Your task to perform on an android device: visit the assistant section in the google photos Image 0: 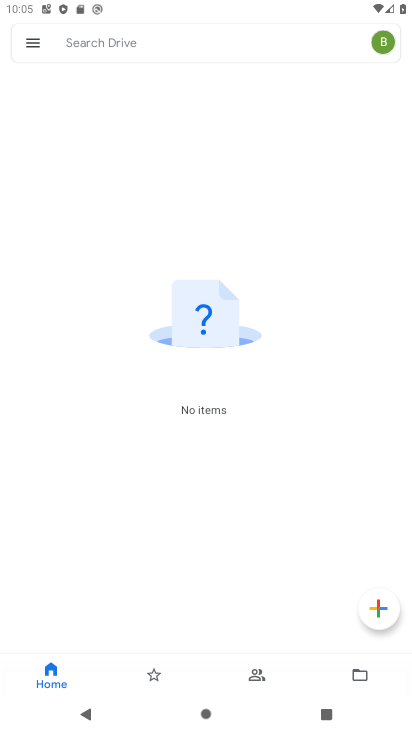
Step 0: press home button
Your task to perform on an android device: visit the assistant section in the google photos Image 1: 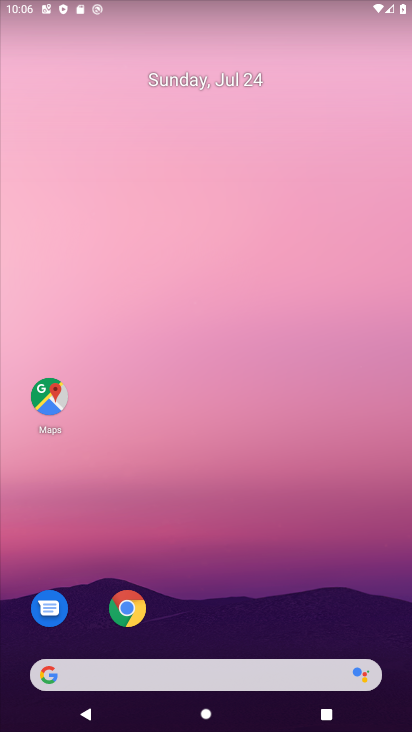
Step 1: drag from (266, 566) to (310, 2)
Your task to perform on an android device: visit the assistant section in the google photos Image 2: 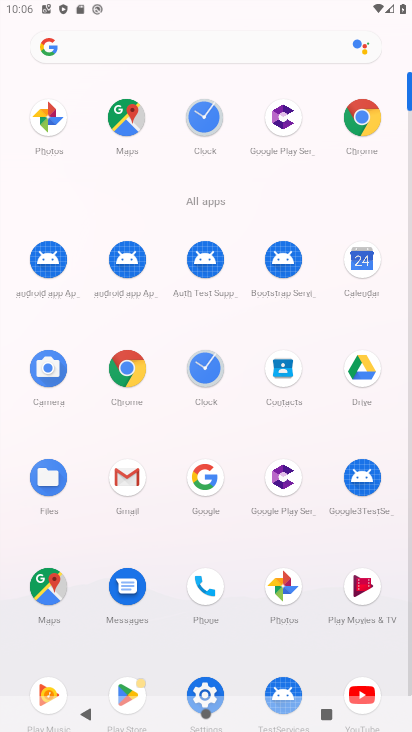
Step 2: click (283, 574)
Your task to perform on an android device: visit the assistant section in the google photos Image 3: 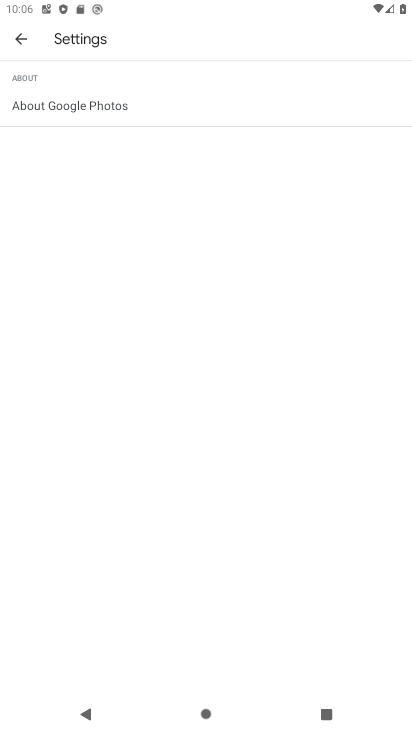
Step 3: click (16, 32)
Your task to perform on an android device: visit the assistant section in the google photos Image 4: 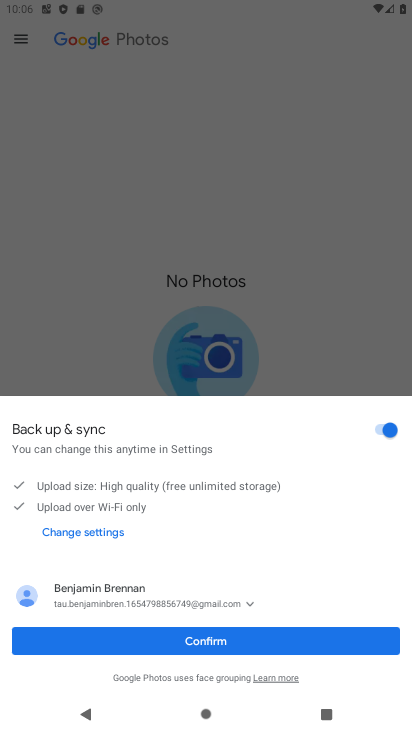
Step 4: click (189, 641)
Your task to perform on an android device: visit the assistant section in the google photos Image 5: 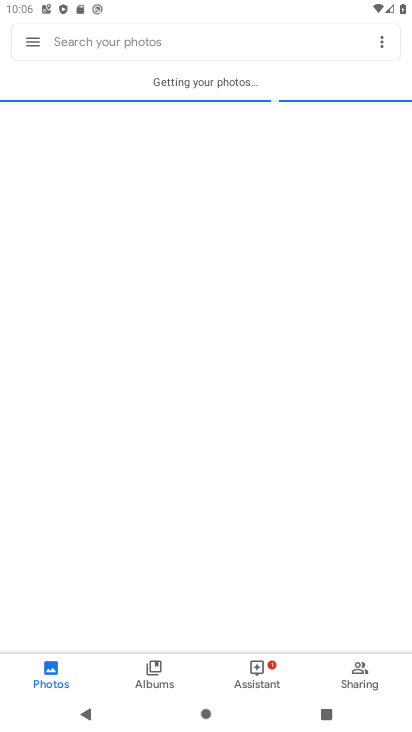
Step 5: click (258, 681)
Your task to perform on an android device: visit the assistant section in the google photos Image 6: 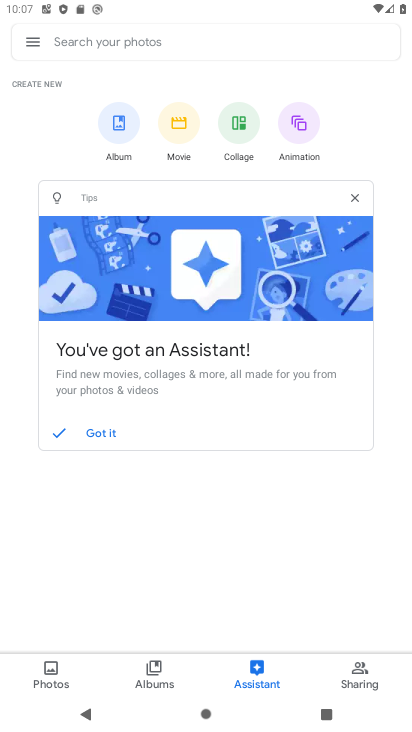
Step 6: task complete